Your task to perform on an android device: Open Maps and search for coffee Image 0: 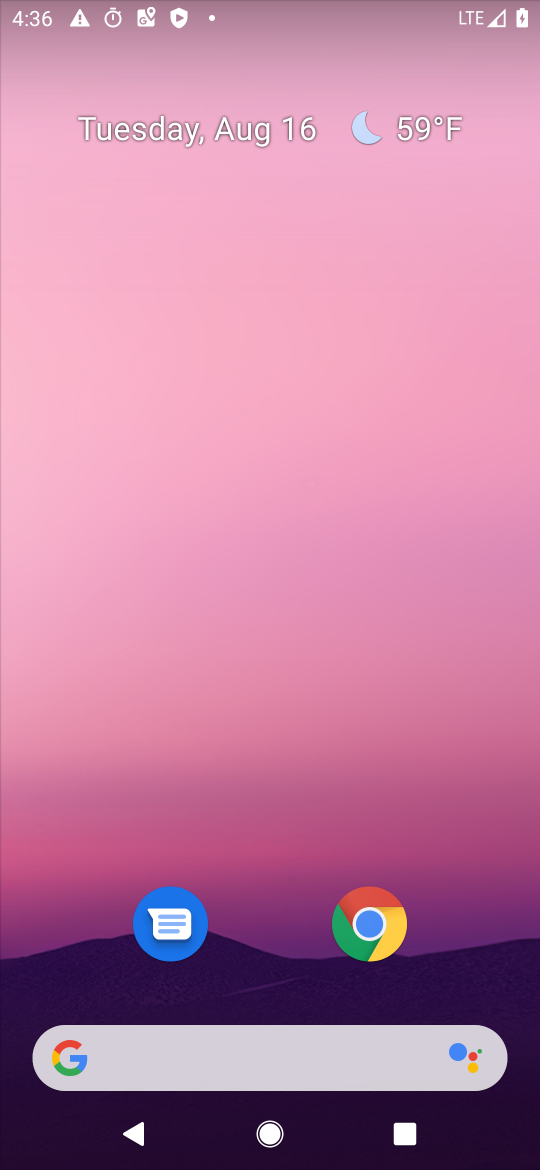
Step 0: click (354, 1070)
Your task to perform on an android device: Open Maps and search for coffee Image 1: 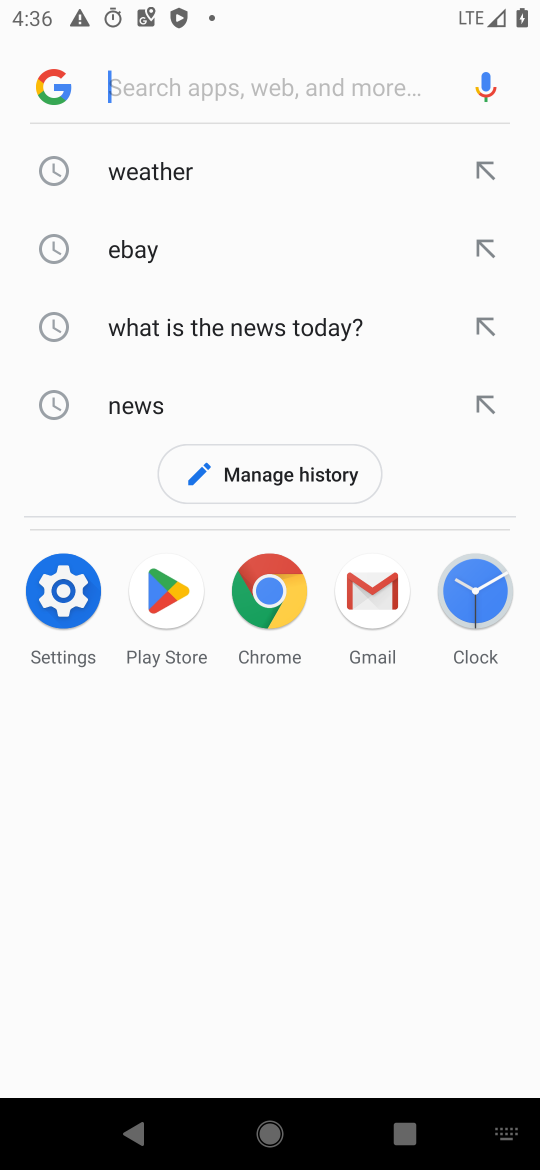
Step 1: press home button
Your task to perform on an android device: Open Maps and search for coffee Image 2: 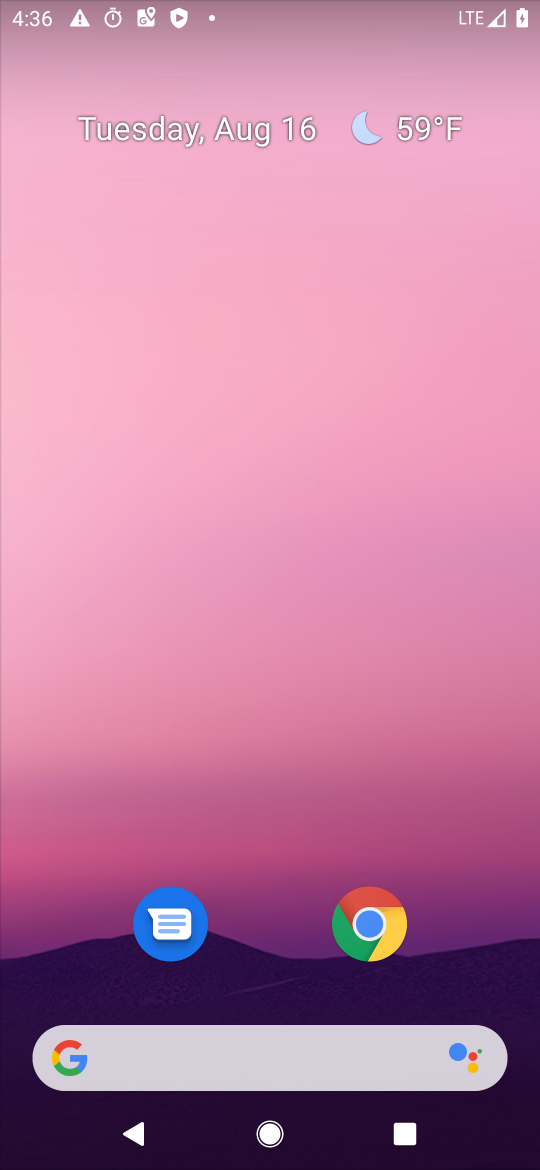
Step 2: drag from (273, 954) to (295, 150)
Your task to perform on an android device: Open Maps and search for coffee Image 3: 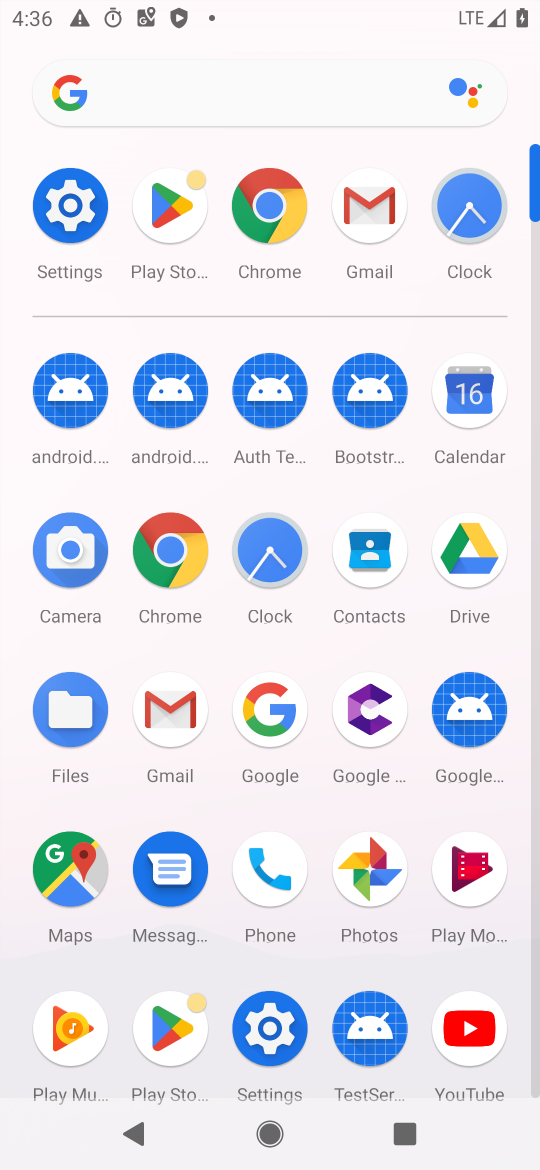
Step 3: click (80, 892)
Your task to perform on an android device: Open Maps and search for coffee Image 4: 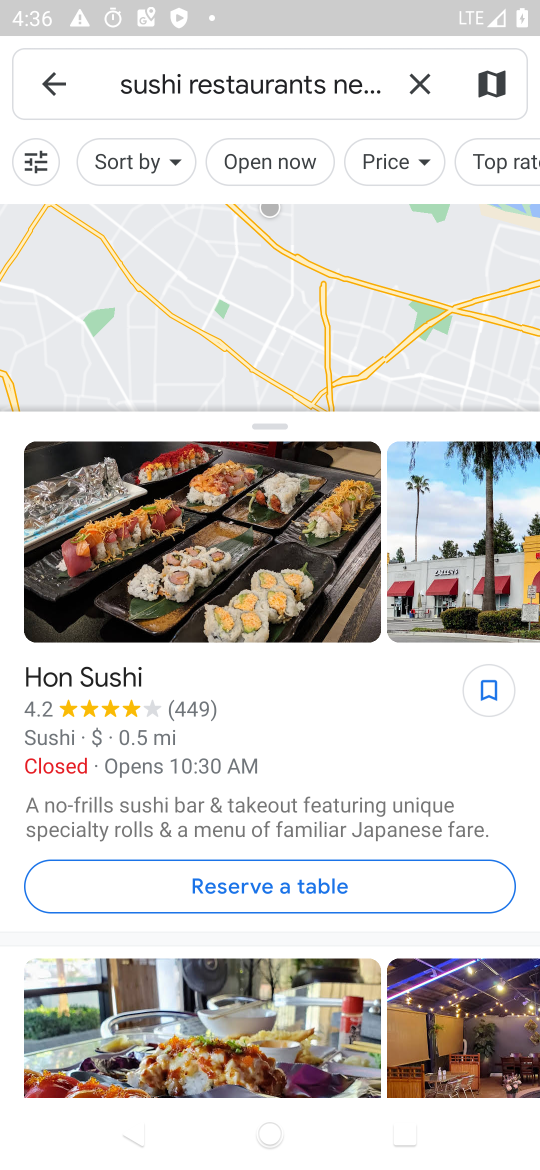
Step 4: click (417, 69)
Your task to perform on an android device: Open Maps and search for coffee Image 5: 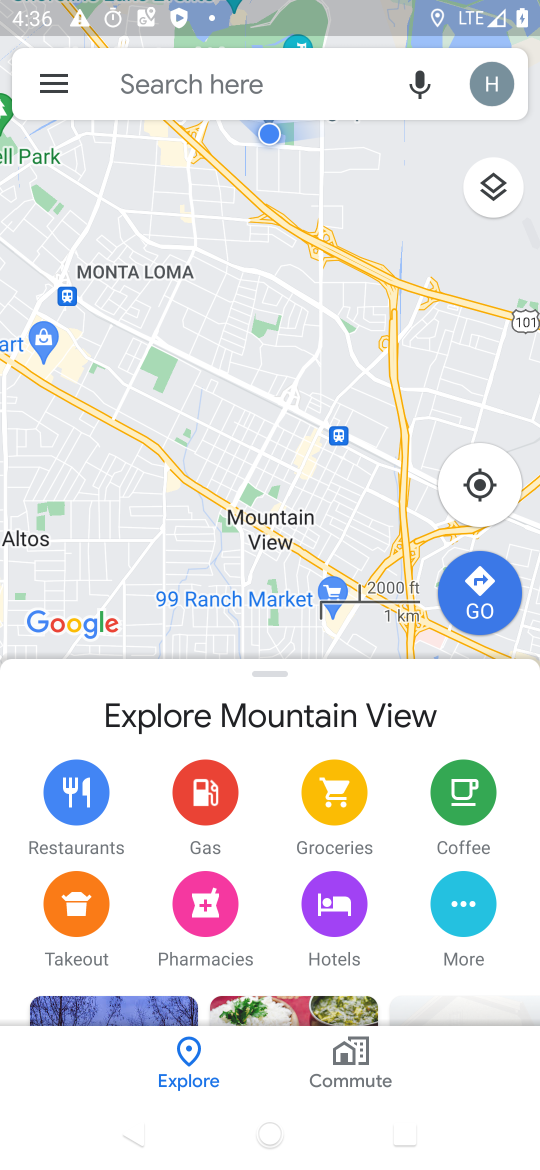
Step 5: click (281, 96)
Your task to perform on an android device: Open Maps and search for coffee Image 6: 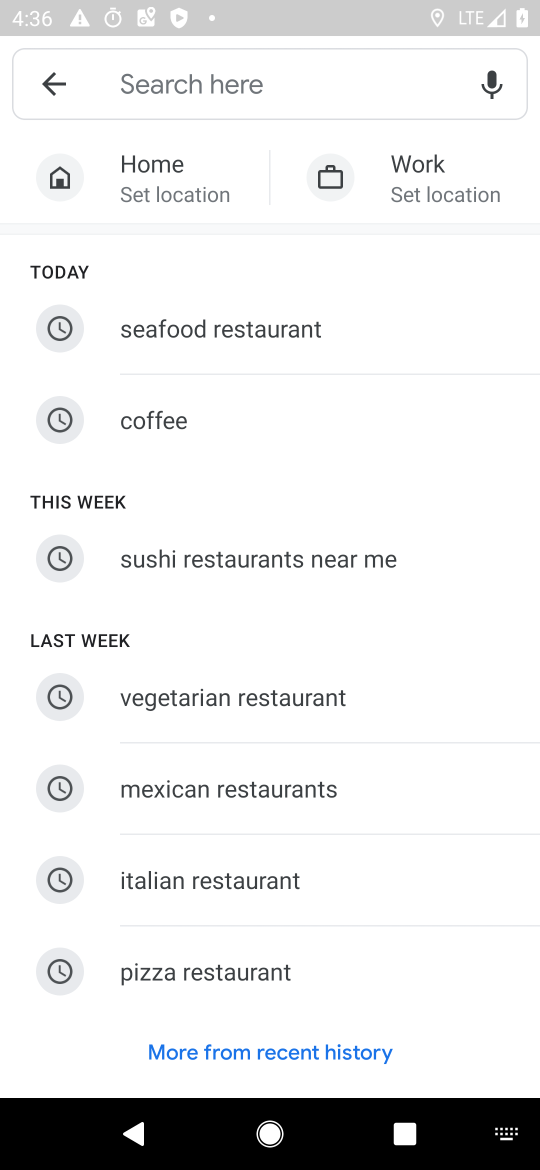
Step 6: click (172, 433)
Your task to perform on an android device: Open Maps and search for coffee Image 7: 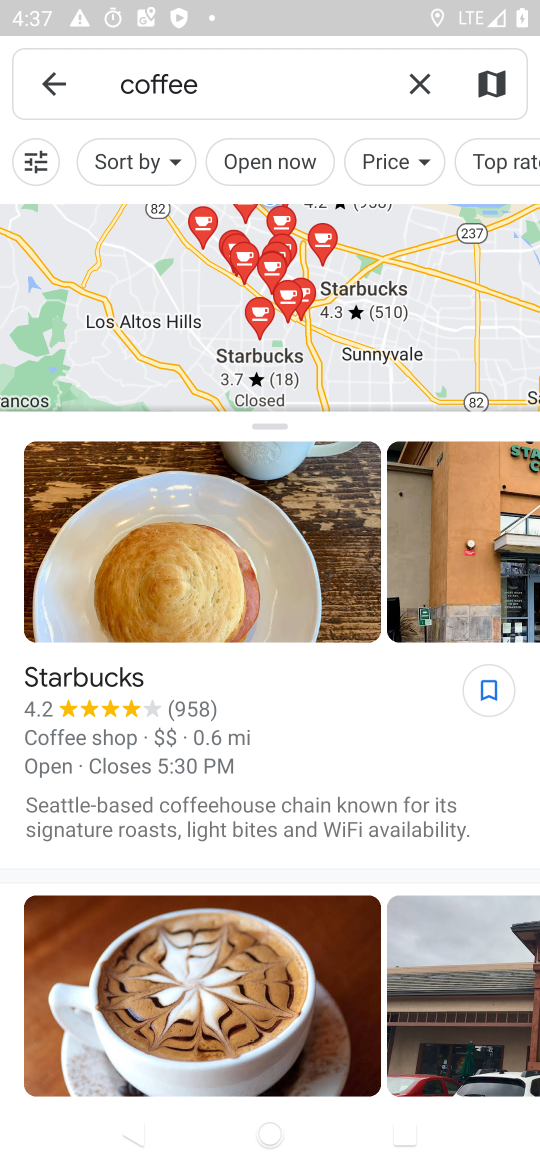
Step 7: task complete